Your task to perform on an android device: turn off smart reply in the gmail app Image 0: 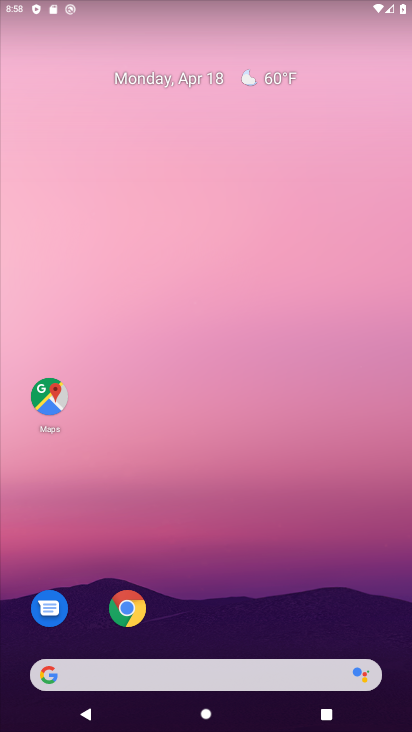
Step 0: drag from (326, 571) to (317, 232)
Your task to perform on an android device: turn off smart reply in the gmail app Image 1: 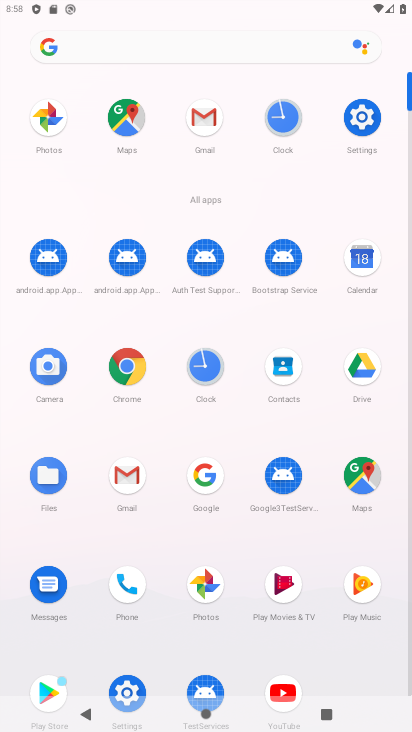
Step 1: click (202, 119)
Your task to perform on an android device: turn off smart reply in the gmail app Image 2: 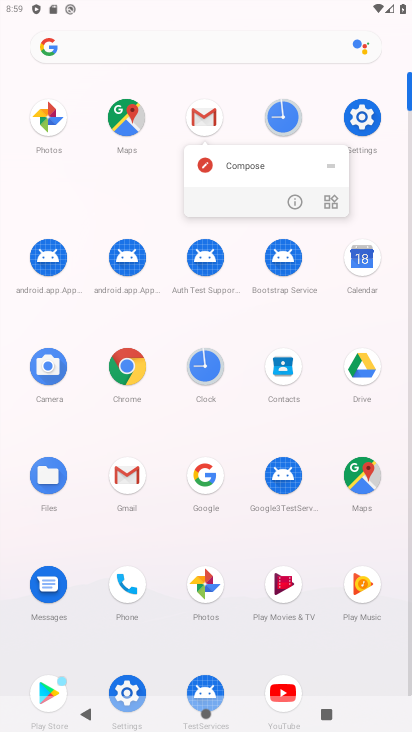
Step 2: click (201, 115)
Your task to perform on an android device: turn off smart reply in the gmail app Image 3: 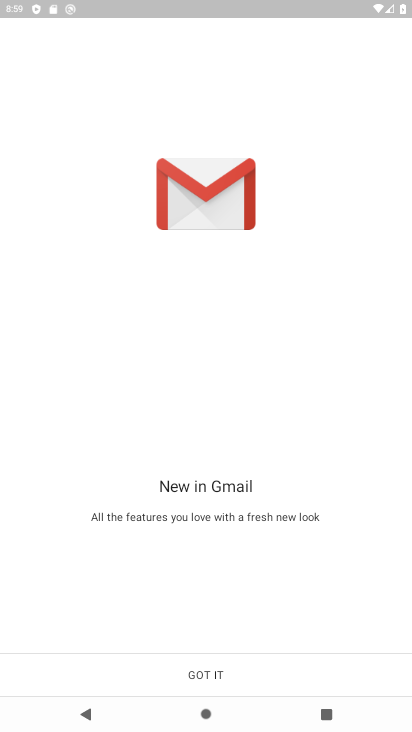
Step 3: click (214, 672)
Your task to perform on an android device: turn off smart reply in the gmail app Image 4: 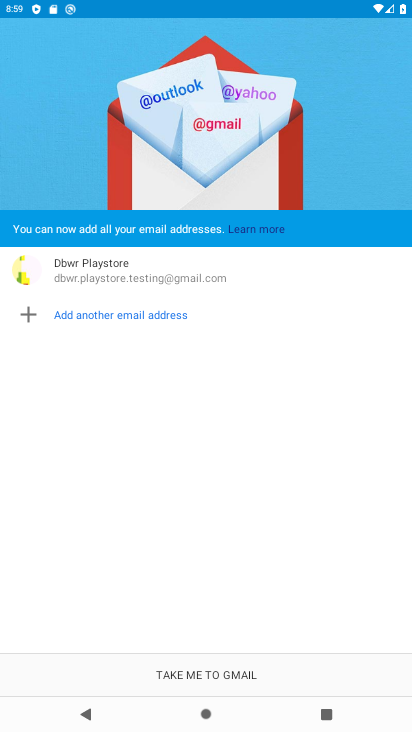
Step 4: click (204, 669)
Your task to perform on an android device: turn off smart reply in the gmail app Image 5: 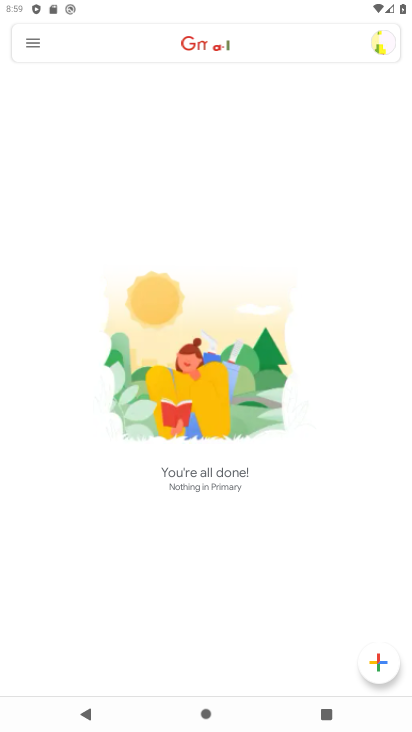
Step 5: click (35, 40)
Your task to perform on an android device: turn off smart reply in the gmail app Image 6: 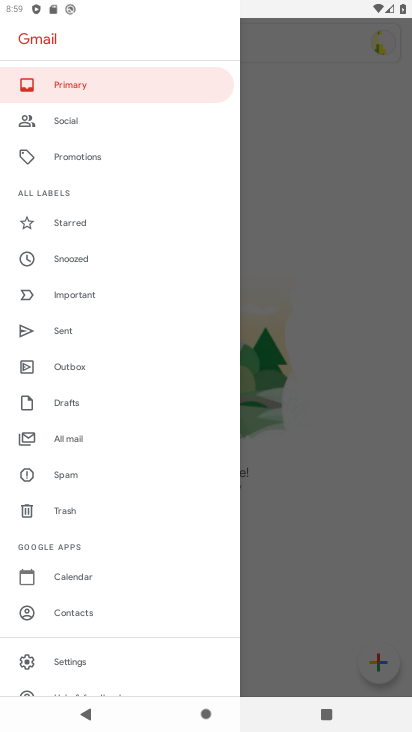
Step 6: click (64, 664)
Your task to perform on an android device: turn off smart reply in the gmail app Image 7: 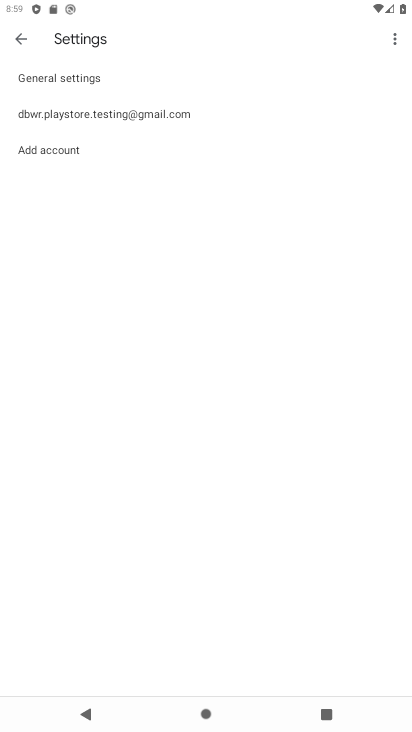
Step 7: click (173, 107)
Your task to perform on an android device: turn off smart reply in the gmail app Image 8: 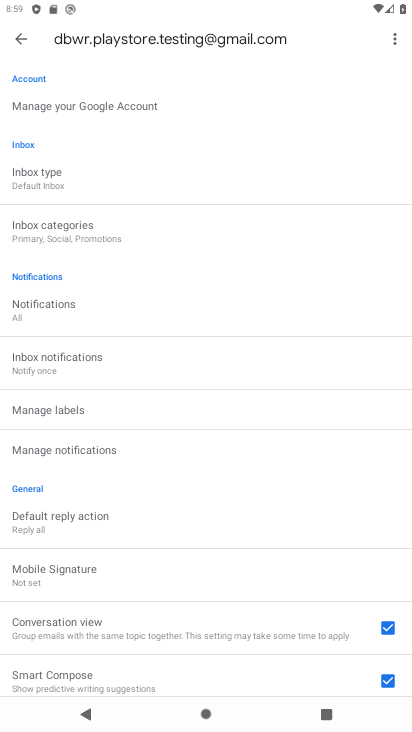
Step 8: drag from (153, 553) to (179, 311)
Your task to perform on an android device: turn off smart reply in the gmail app Image 9: 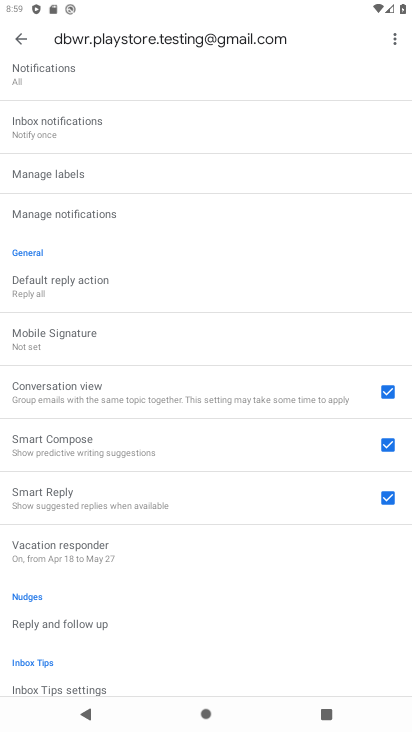
Step 9: click (386, 498)
Your task to perform on an android device: turn off smart reply in the gmail app Image 10: 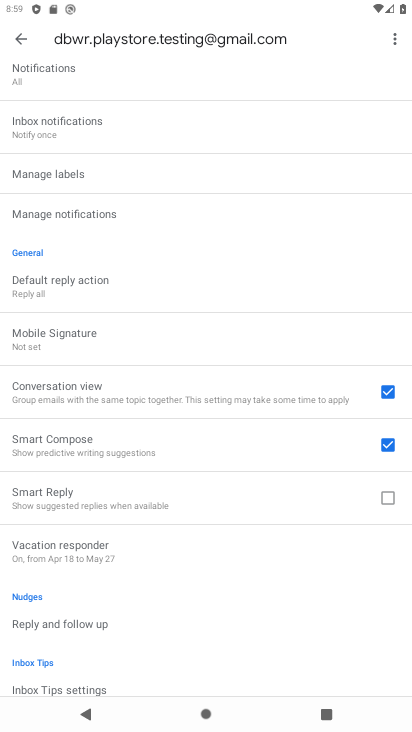
Step 10: task complete